Your task to perform on an android device: move a message to another label in the gmail app Image 0: 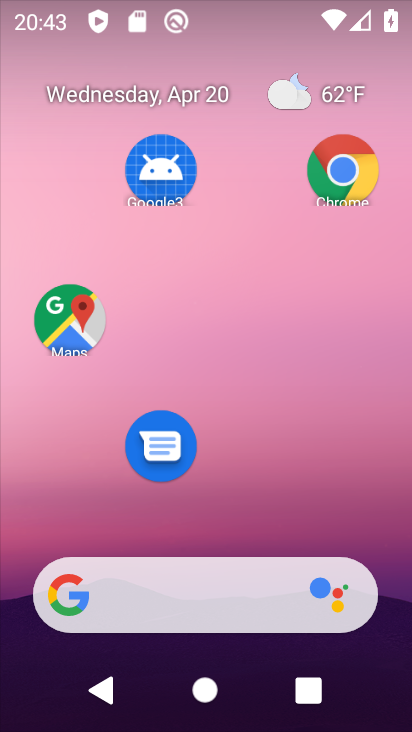
Step 0: drag from (266, 437) to (265, 122)
Your task to perform on an android device: move a message to another label in the gmail app Image 1: 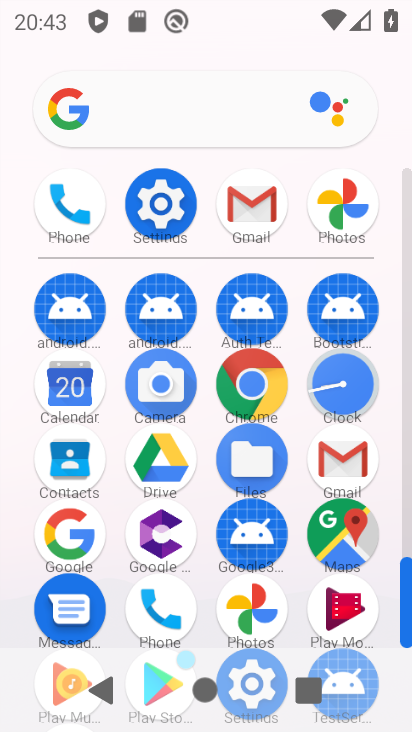
Step 1: click (249, 208)
Your task to perform on an android device: move a message to another label in the gmail app Image 2: 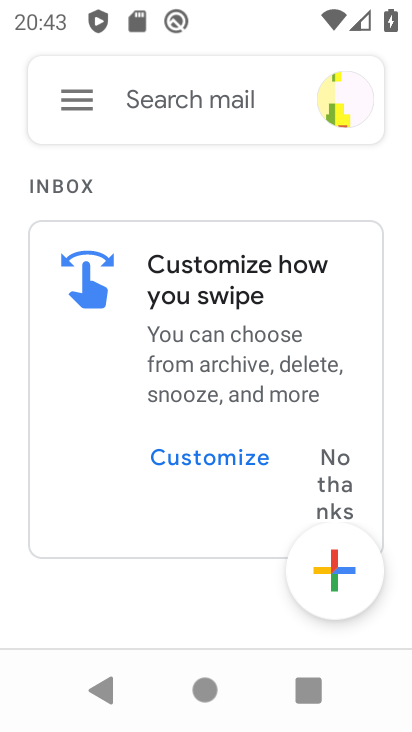
Step 2: click (72, 102)
Your task to perform on an android device: move a message to another label in the gmail app Image 3: 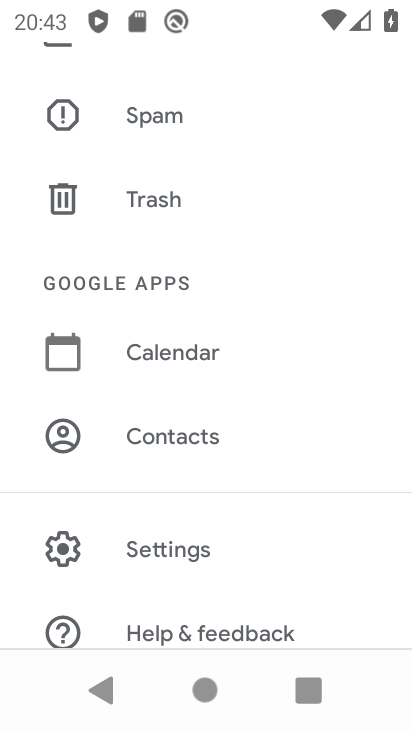
Step 3: drag from (259, 252) to (259, 565)
Your task to perform on an android device: move a message to another label in the gmail app Image 4: 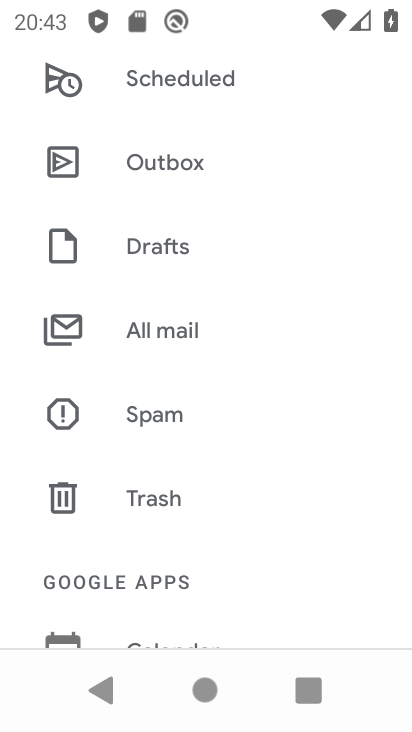
Step 4: click (176, 329)
Your task to perform on an android device: move a message to another label in the gmail app Image 5: 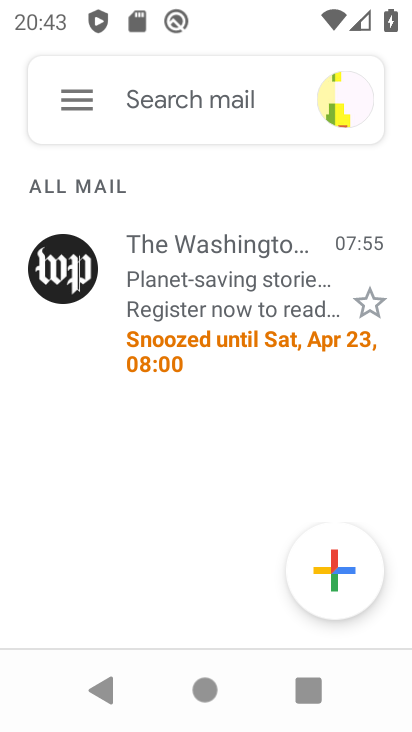
Step 5: click (199, 298)
Your task to perform on an android device: move a message to another label in the gmail app Image 6: 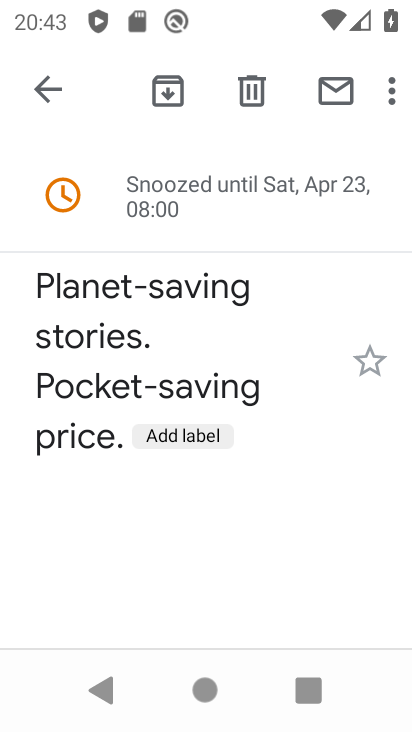
Step 6: click (393, 102)
Your task to perform on an android device: move a message to another label in the gmail app Image 7: 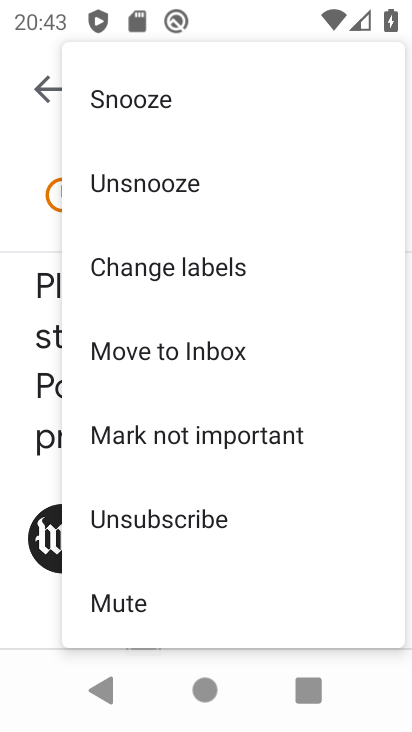
Step 7: click (200, 268)
Your task to perform on an android device: move a message to another label in the gmail app Image 8: 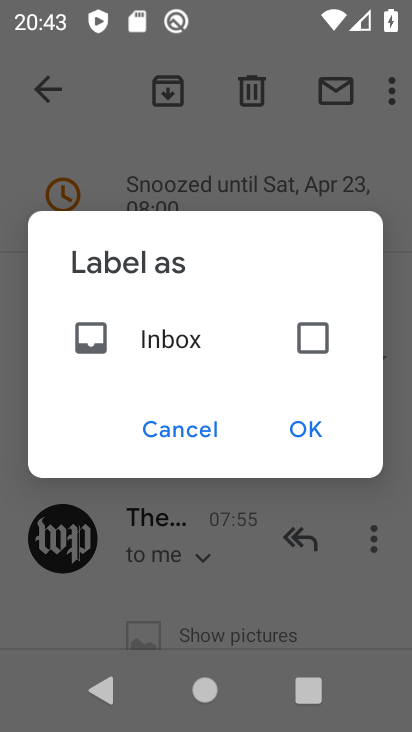
Step 8: click (311, 338)
Your task to perform on an android device: move a message to another label in the gmail app Image 9: 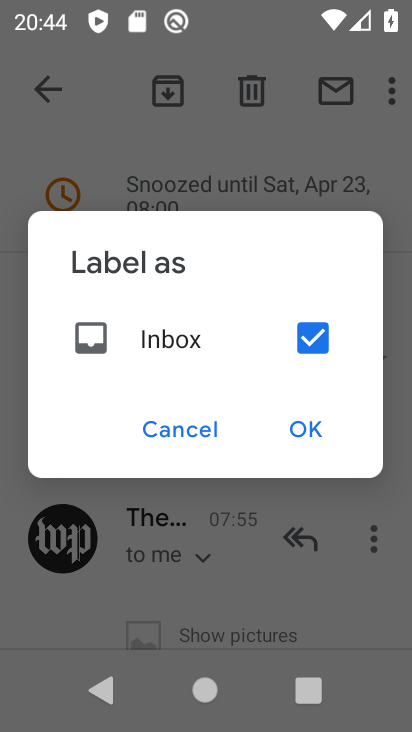
Step 9: click (308, 426)
Your task to perform on an android device: move a message to another label in the gmail app Image 10: 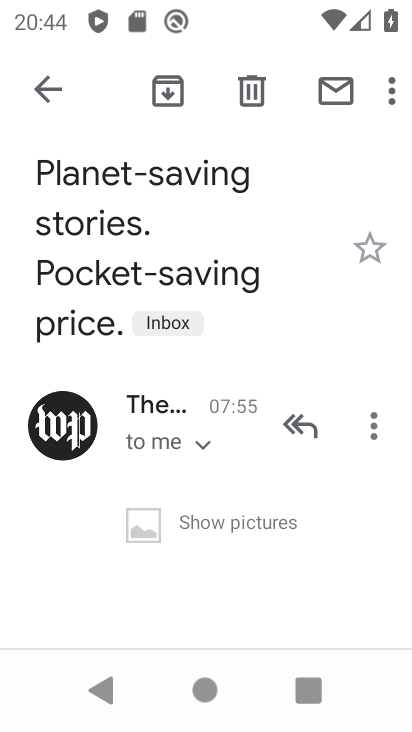
Step 10: task complete